Your task to perform on an android device: Open the web browser Image 0: 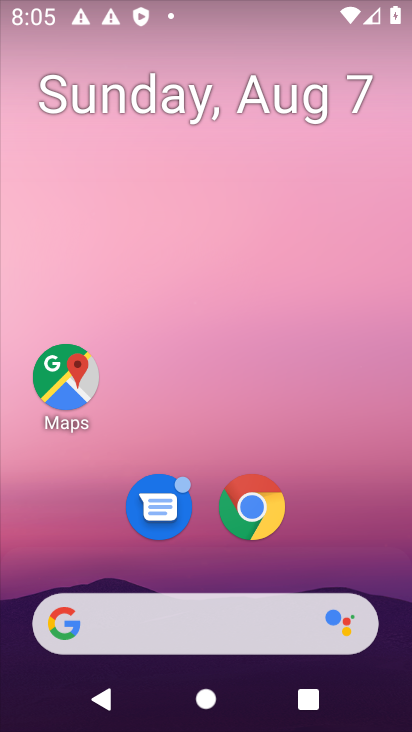
Step 0: click (255, 507)
Your task to perform on an android device: Open the web browser Image 1: 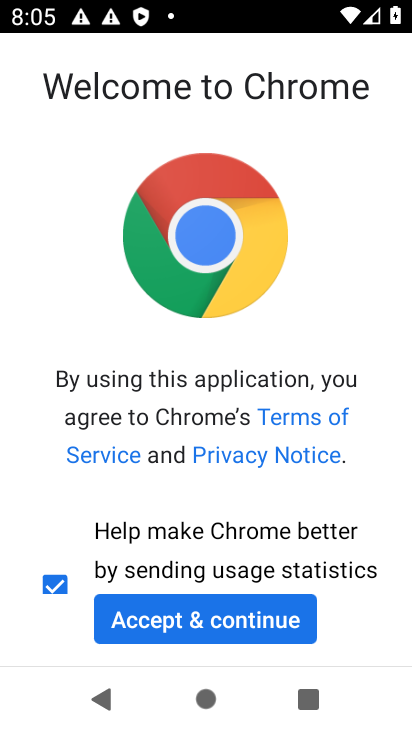
Step 1: click (218, 617)
Your task to perform on an android device: Open the web browser Image 2: 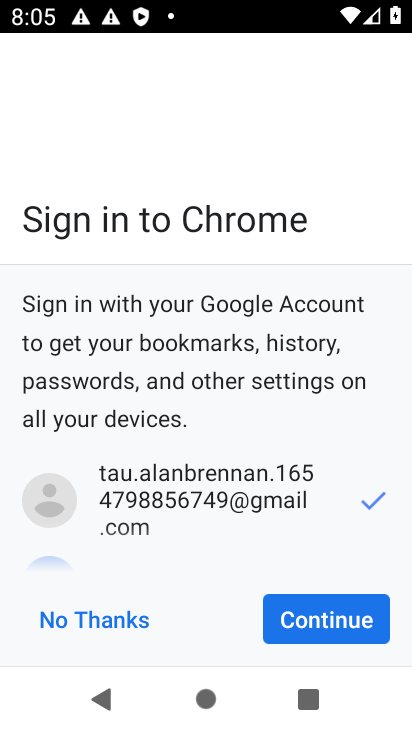
Step 2: click (336, 623)
Your task to perform on an android device: Open the web browser Image 3: 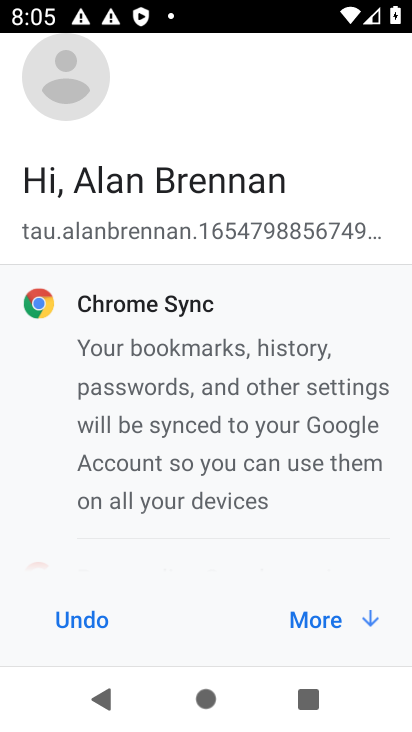
Step 3: click (336, 623)
Your task to perform on an android device: Open the web browser Image 4: 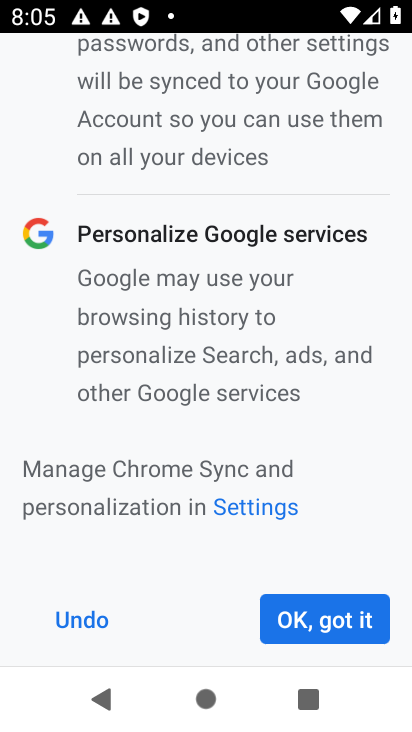
Step 4: click (318, 616)
Your task to perform on an android device: Open the web browser Image 5: 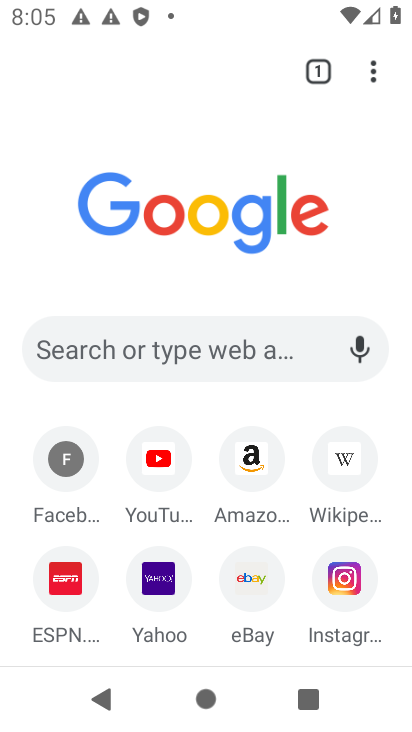
Step 5: task complete